Your task to perform on an android device: Open notification settings Image 0: 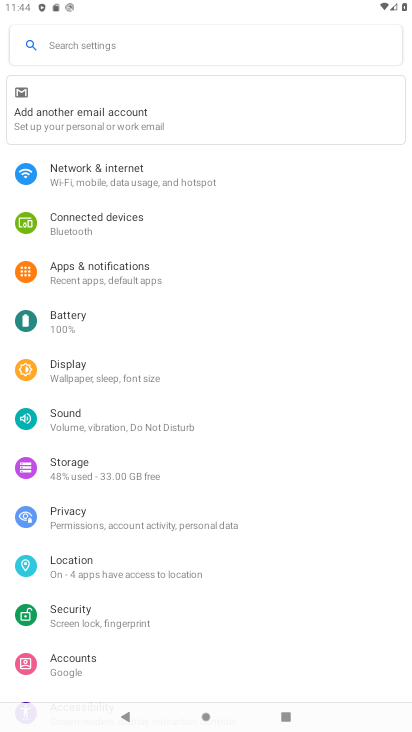
Step 0: click (115, 268)
Your task to perform on an android device: Open notification settings Image 1: 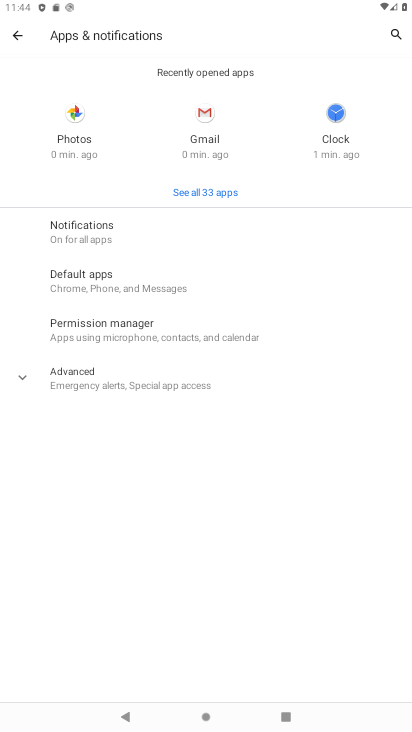
Step 1: click (84, 234)
Your task to perform on an android device: Open notification settings Image 2: 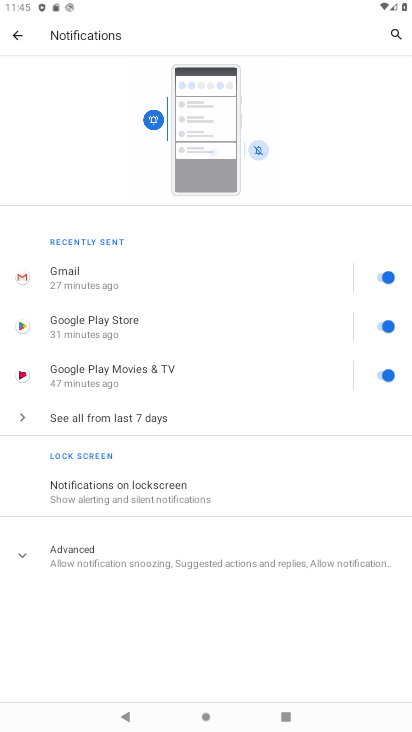
Step 2: task complete